Your task to perform on an android device: delete a single message in the gmail app Image 0: 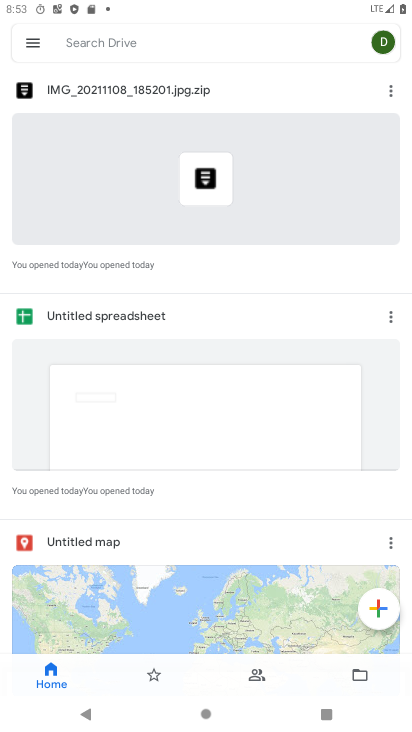
Step 0: press home button
Your task to perform on an android device: delete a single message in the gmail app Image 1: 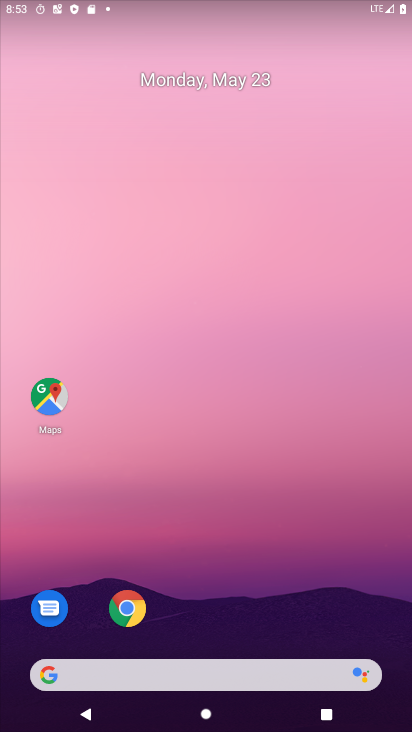
Step 1: drag from (206, 679) to (350, 4)
Your task to perform on an android device: delete a single message in the gmail app Image 2: 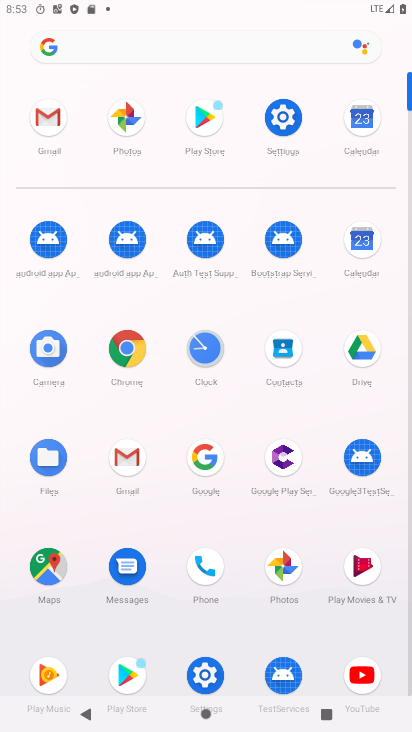
Step 2: click (122, 452)
Your task to perform on an android device: delete a single message in the gmail app Image 3: 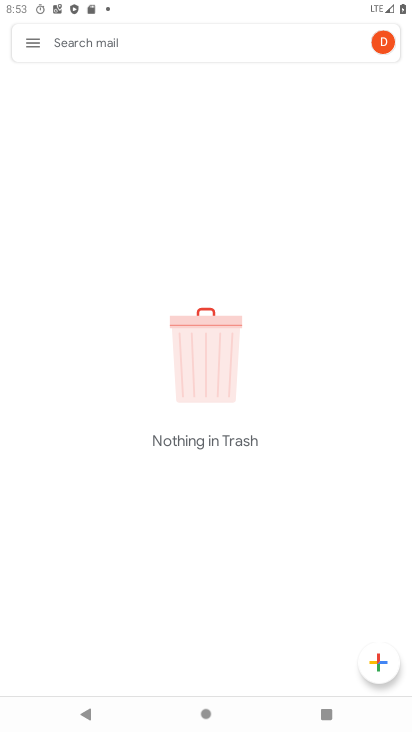
Step 3: click (41, 44)
Your task to perform on an android device: delete a single message in the gmail app Image 4: 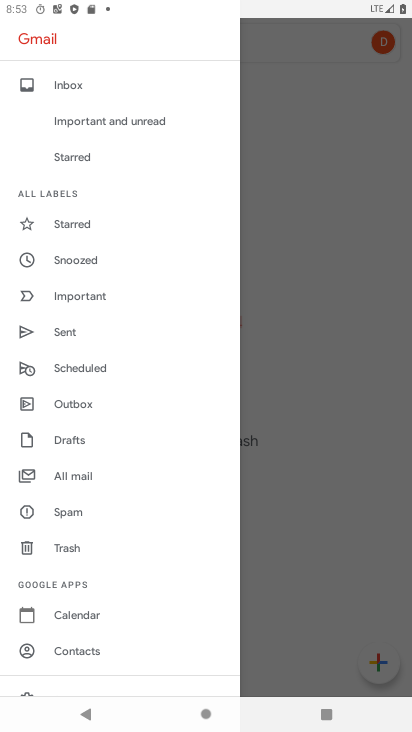
Step 4: click (81, 472)
Your task to perform on an android device: delete a single message in the gmail app Image 5: 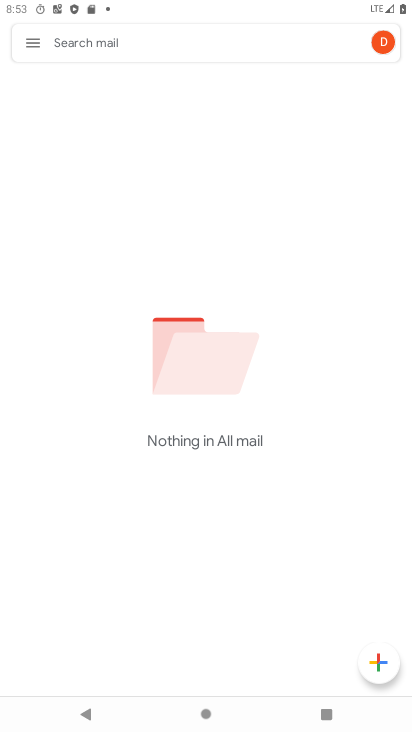
Step 5: task complete